Your task to perform on an android device: uninstall "Google Chat" Image 0: 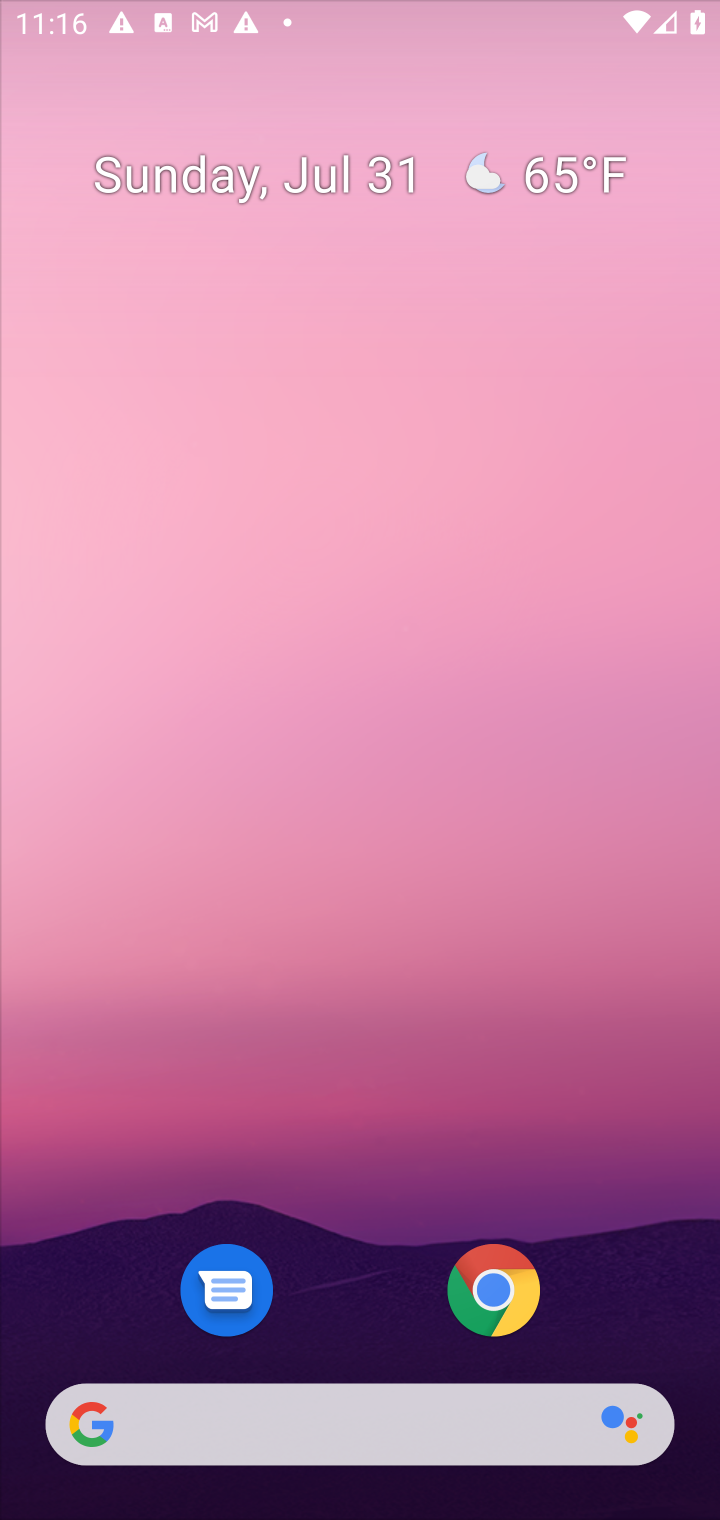
Step 0: press home button
Your task to perform on an android device: uninstall "Google Chat" Image 1: 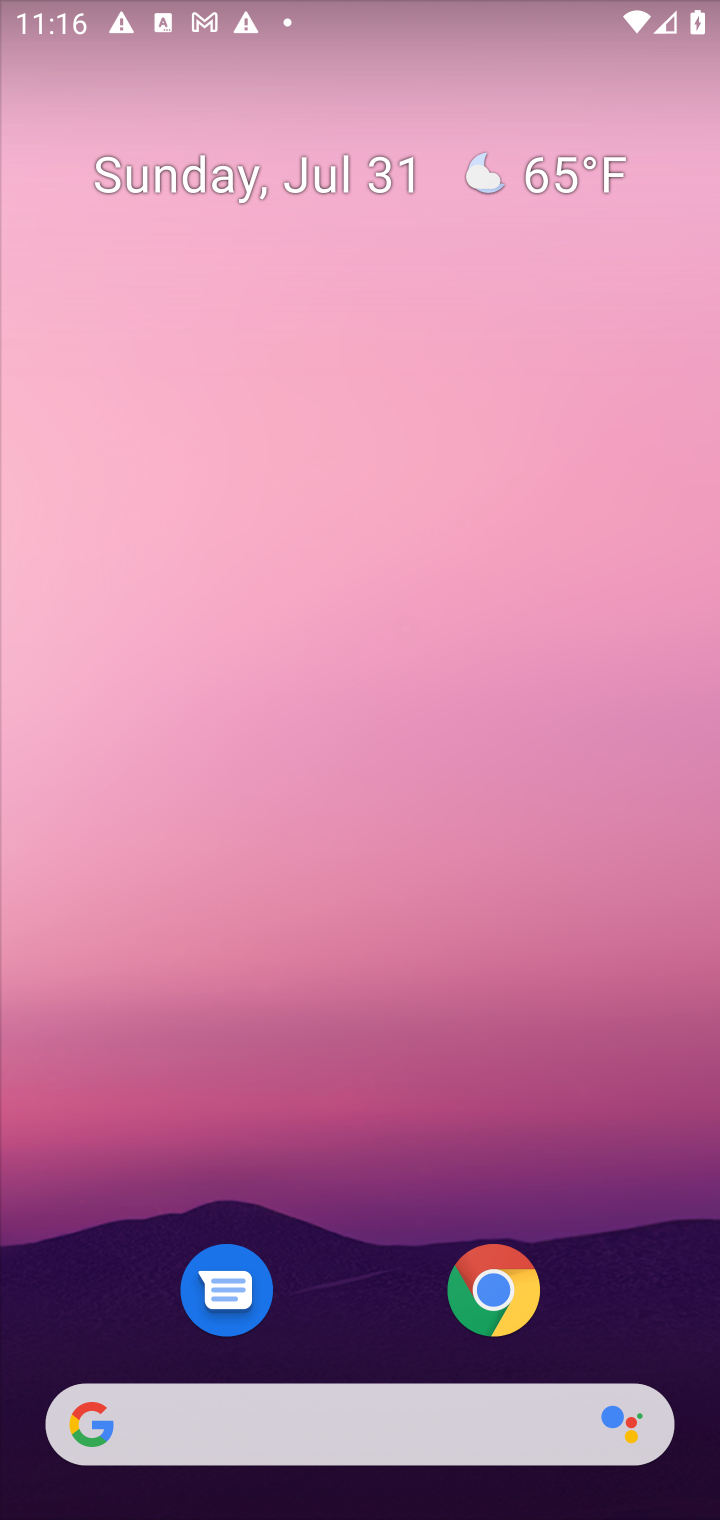
Step 1: drag from (625, 1282) to (543, 171)
Your task to perform on an android device: uninstall "Google Chat" Image 2: 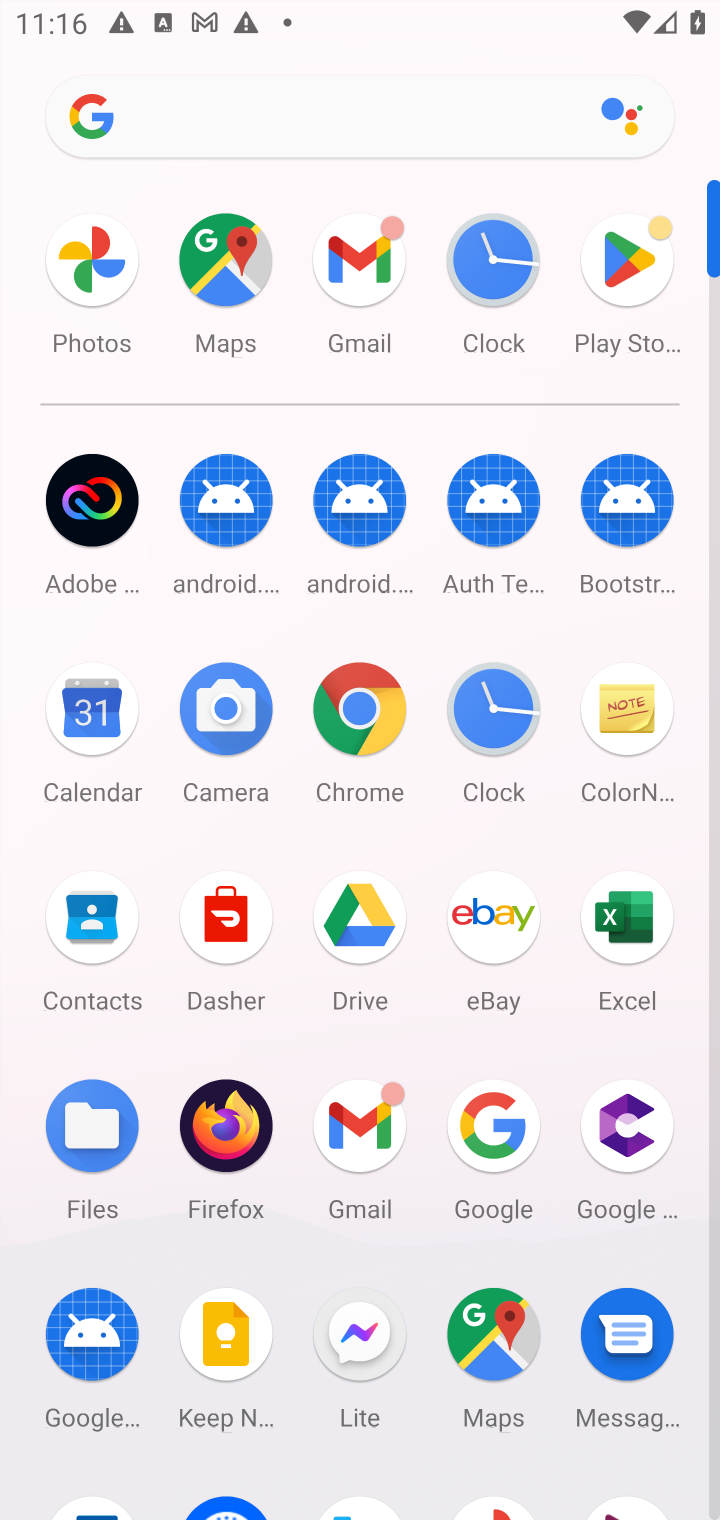
Step 2: click (642, 254)
Your task to perform on an android device: uninstall "Google Chat" Image 3: 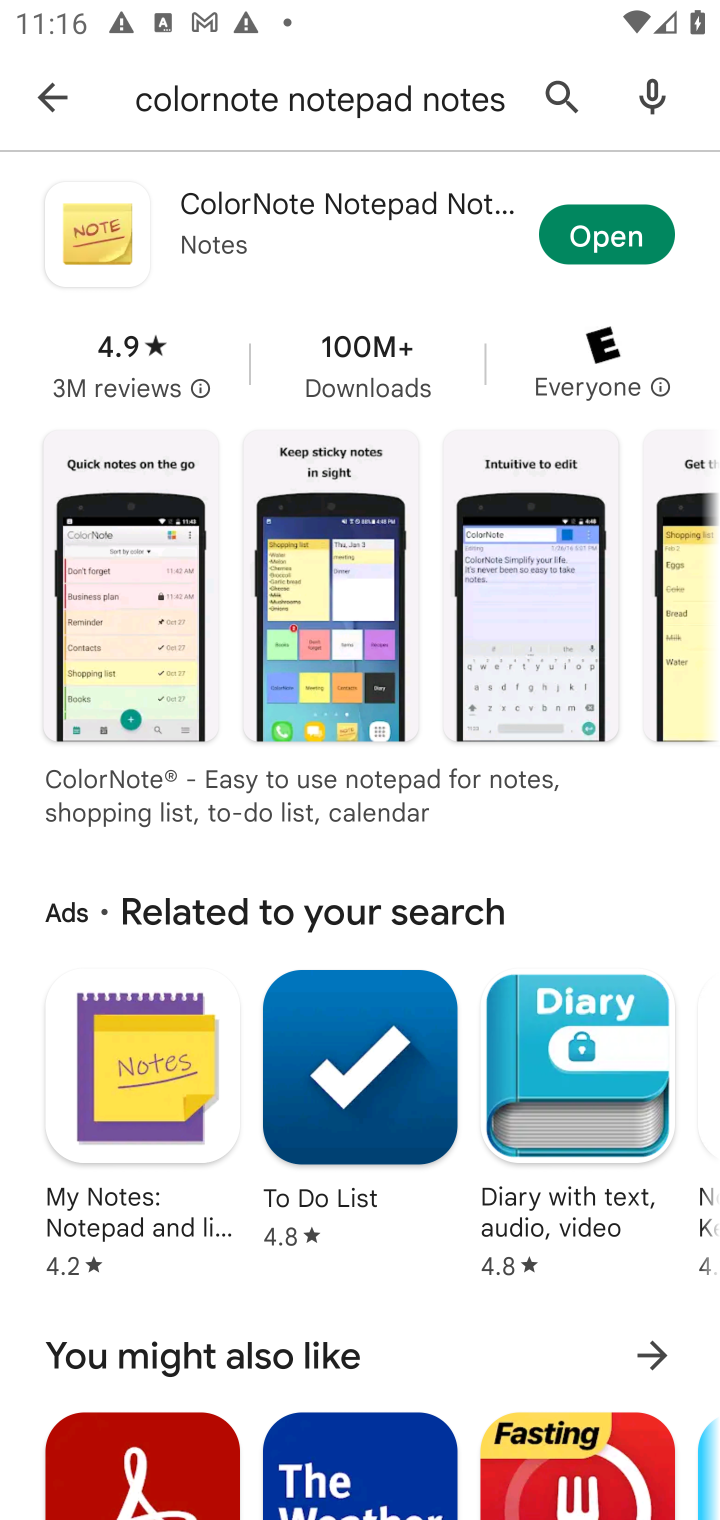
Step 3: click (558, 89)
Your task to perform on an android device: uninstall "Google Chat" Image 4: 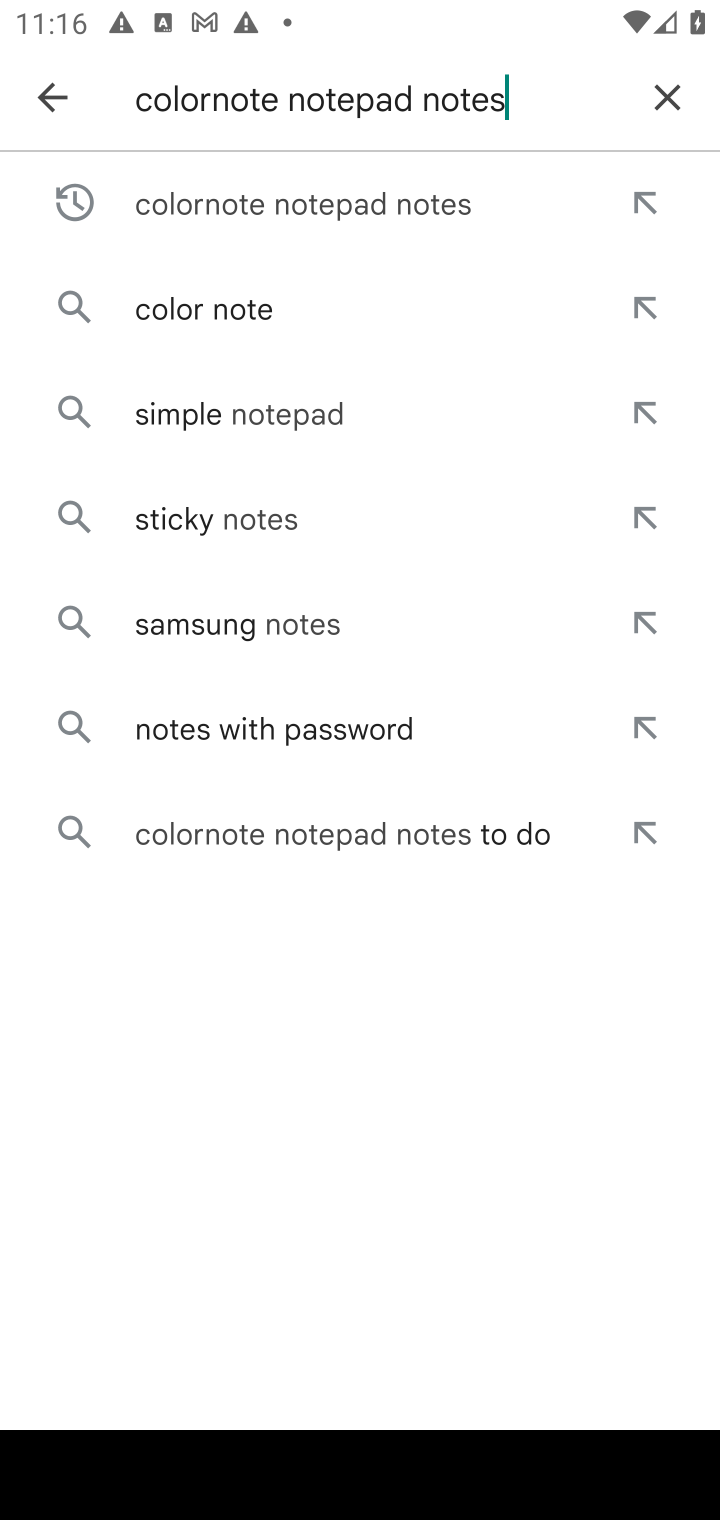
Step 4: click (655, 96)
Your task to perform on an android device: uninstall "Google Chat" Image 5: 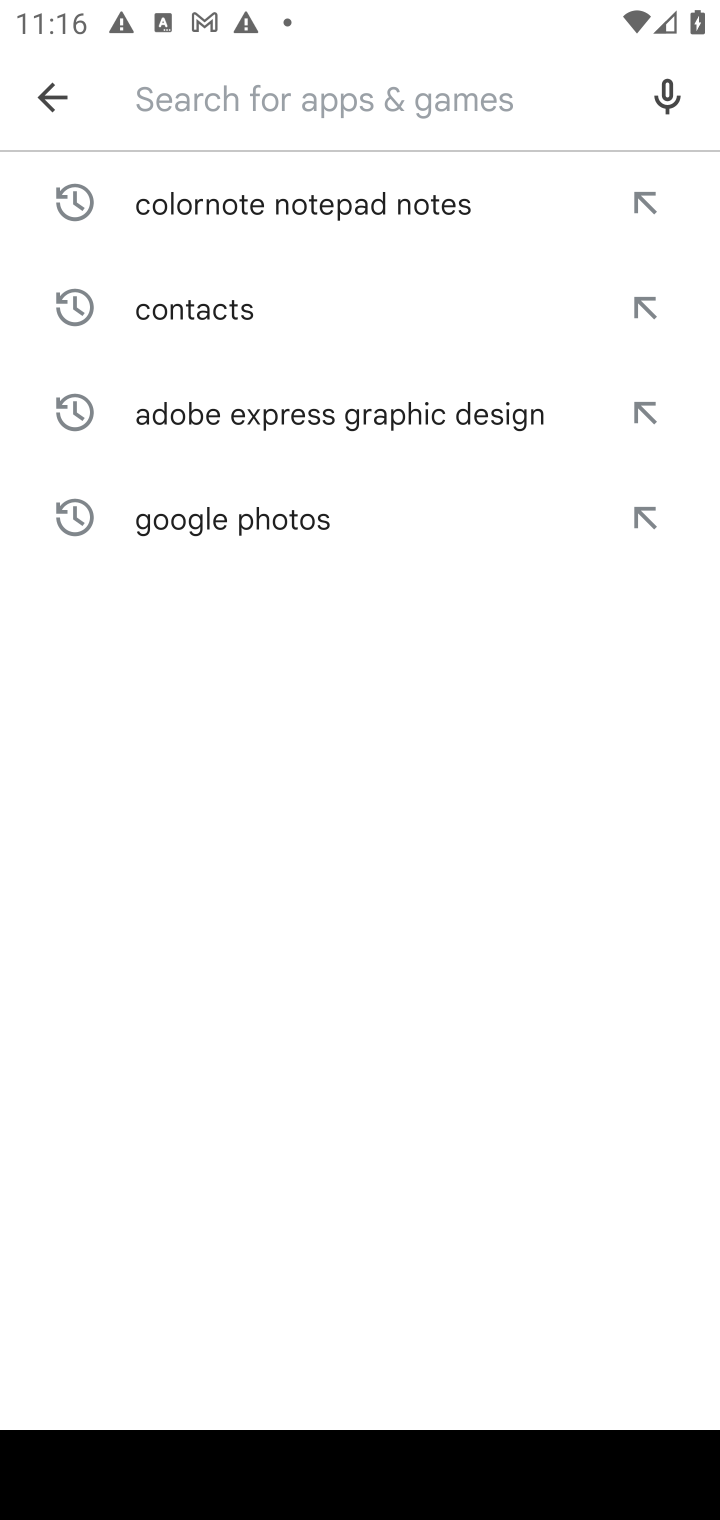
Step 5: type "google chat"
Your task to perform on an android device: uninstall "Google Chat" Image 6: 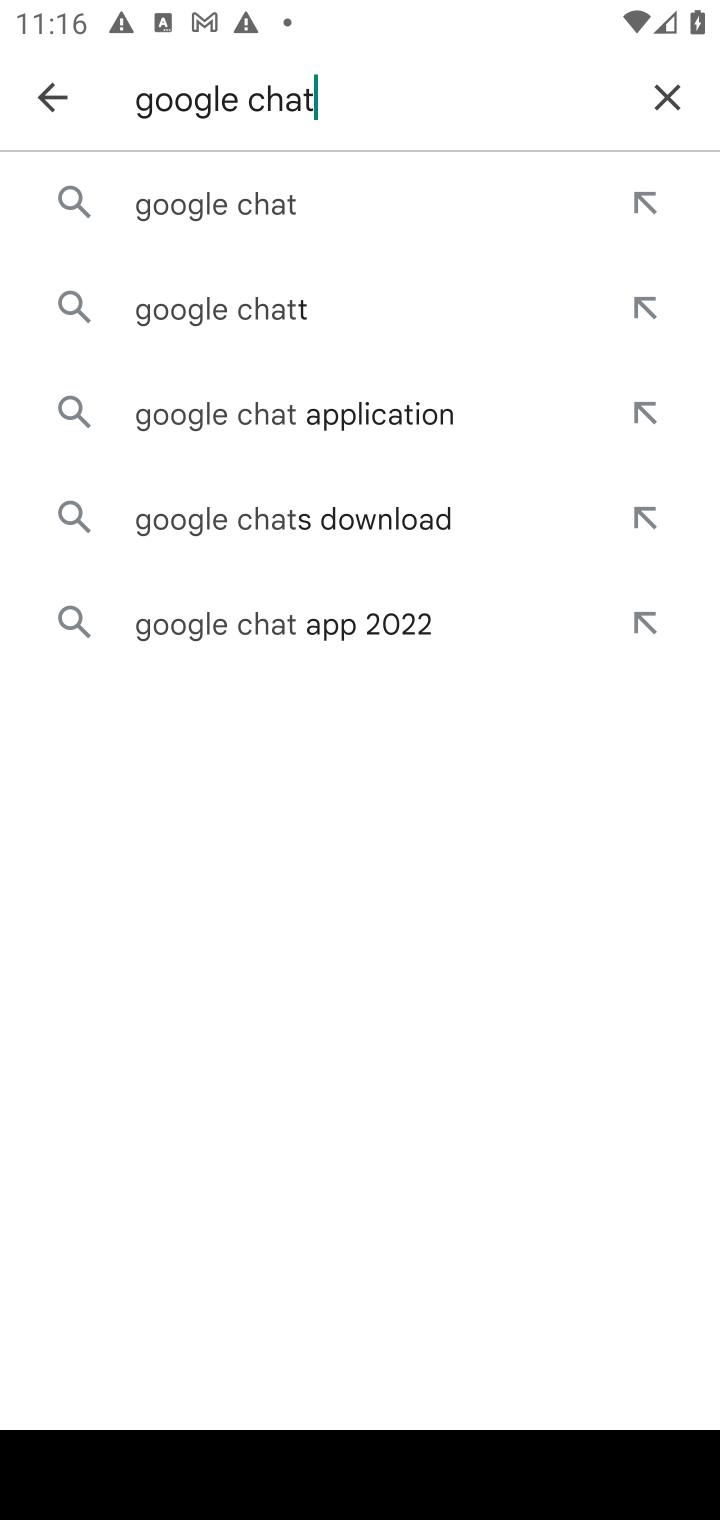
Step 6: click (333, 187)
Your task to perform on an android device: uninstall "Google Chat" Image 7: 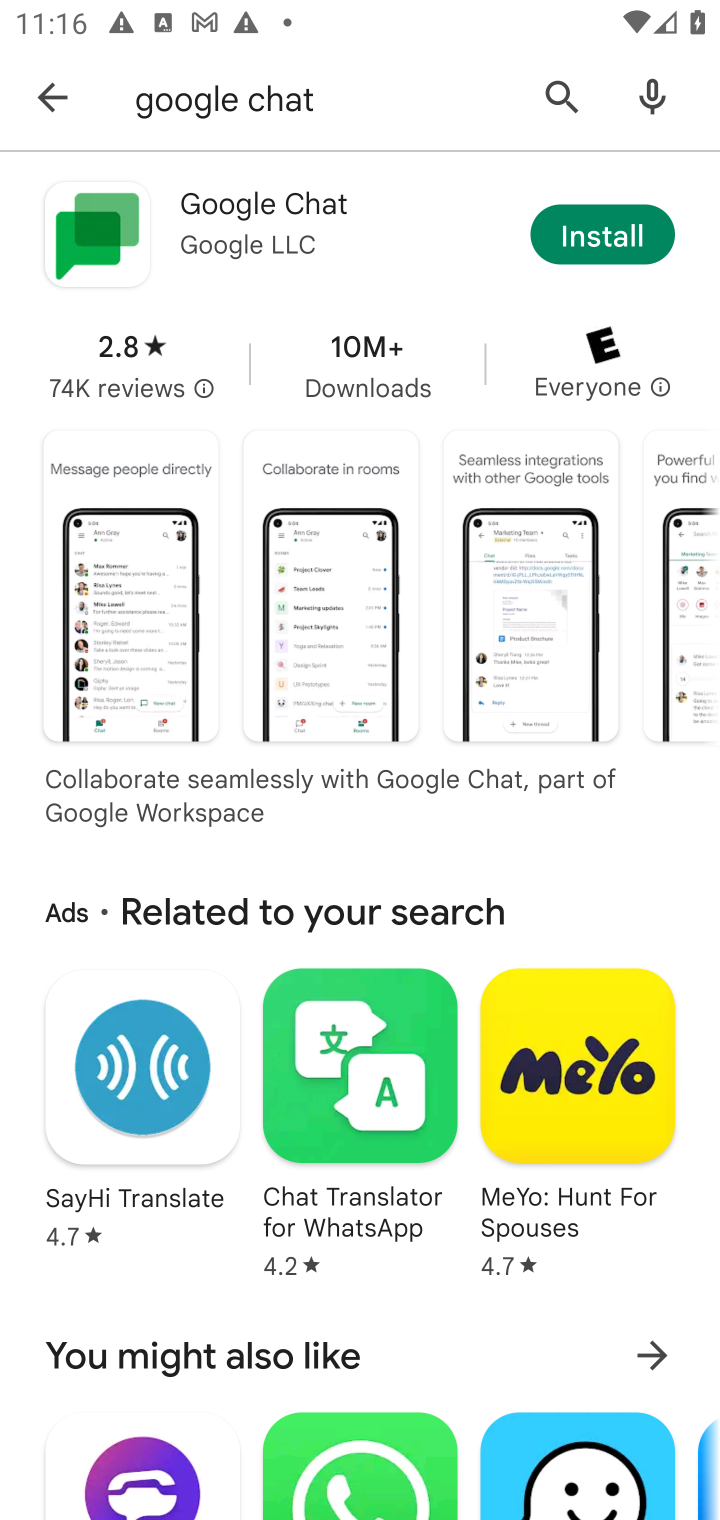
Step 7: task complete